Your task to perform on an android device: turn notification dots on Image 0: 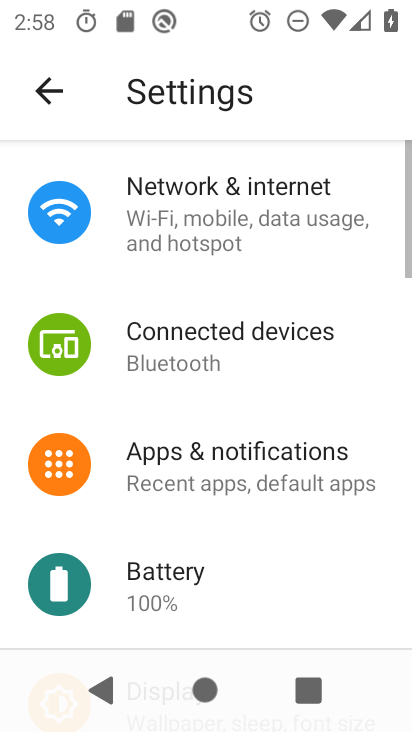
Step 0: click (283, 457)
Your task to perform on an android device: turn notification dots on Image 1: 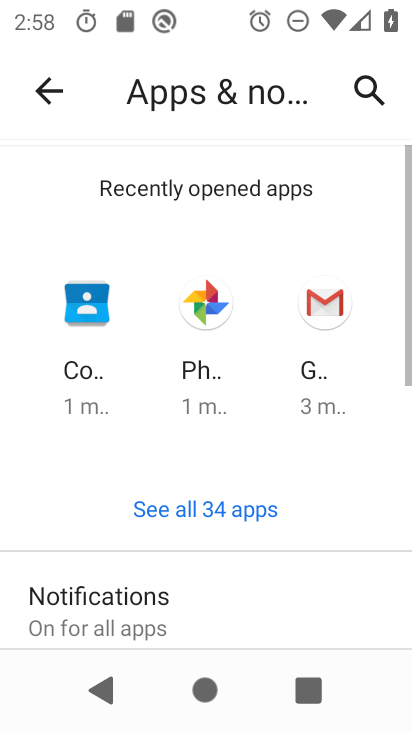
Step 1: click (251, 593)
Your task to perform on an android device: turn notification dots on Image 2: 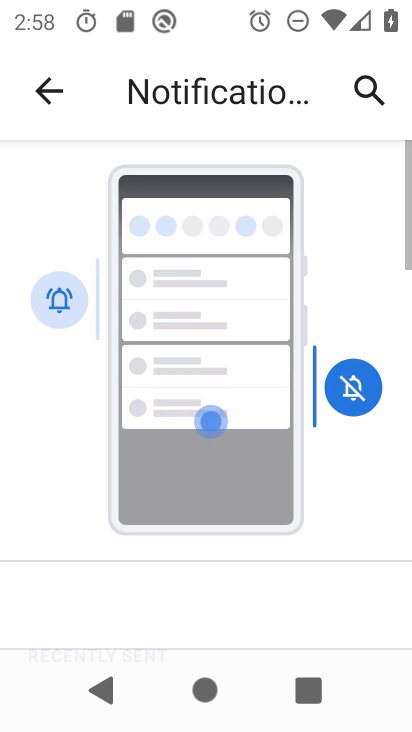
Step 2: drag from (254, 591) to (241, 267)
Your task to perform on an android device: turn notification dots on Image 3: 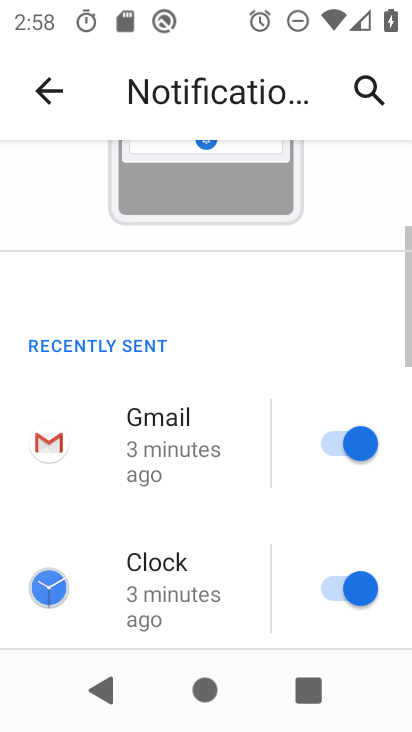
Step 3: drag from (209, 569) to (165, 246)
Your task to perform on an android device: turn notification dots on Image 4: 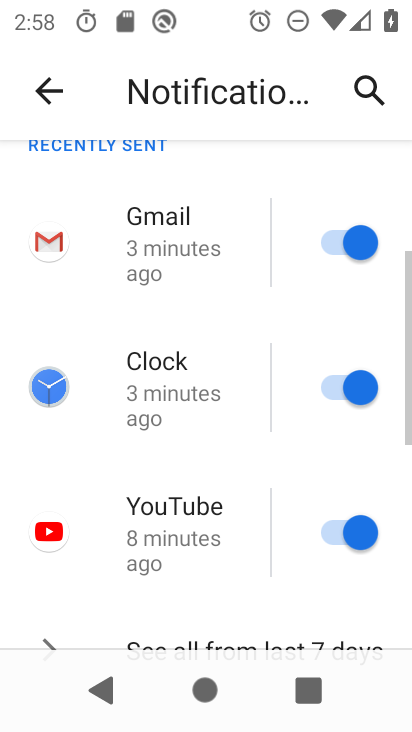
Step 4: drag from (241, 533) to (189, 269)
Your task to perform on an android device: turn notification dots on Image 5: 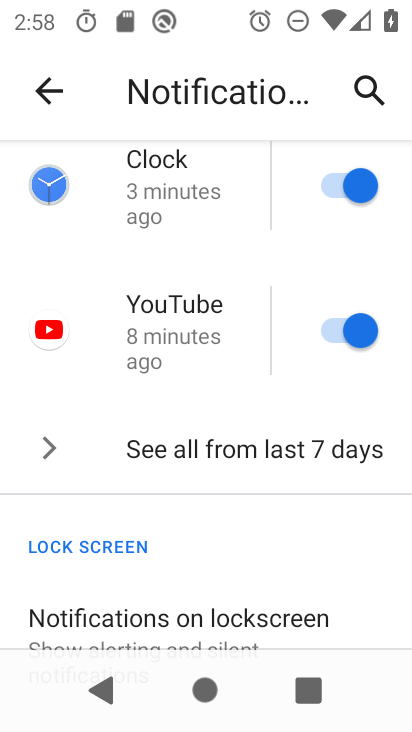
Step 5: drag from (253, 567) to (232, 357)
Your task to perform on an android device: turn notification dots on Image 6: 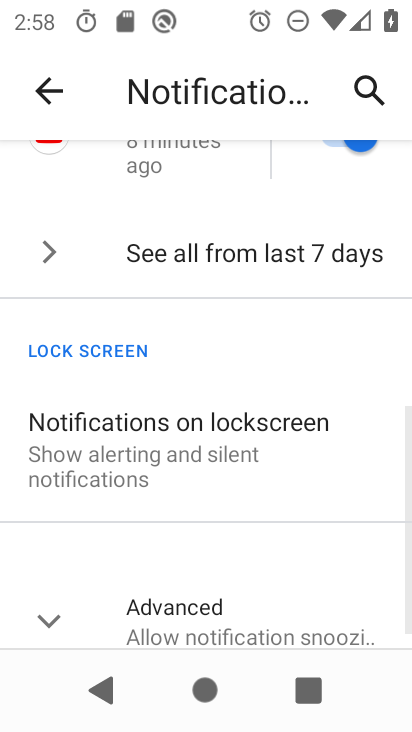
Step 6: drag from (222, 617) to (214, 411)
Your task to perform on an android device: turn notification dots on Image 7: 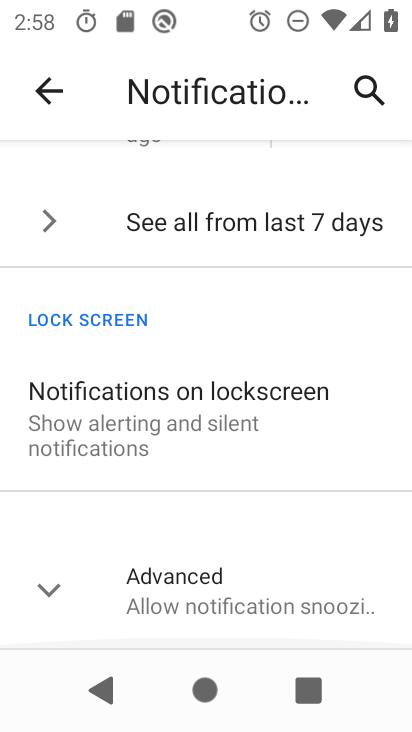
Step 7: click (209, 582)
Your task to perform on an android device: turn notification dots on Image 8: 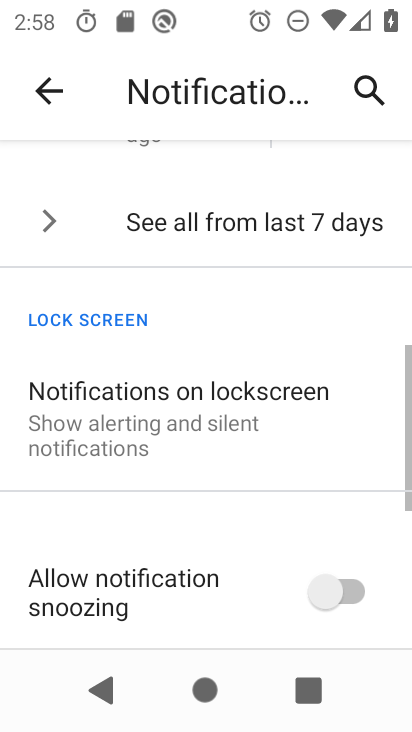
Step 8: drag from (210, 580) to (188, 347)
Your task to perform on an android device: turn notification dots on Image 9: 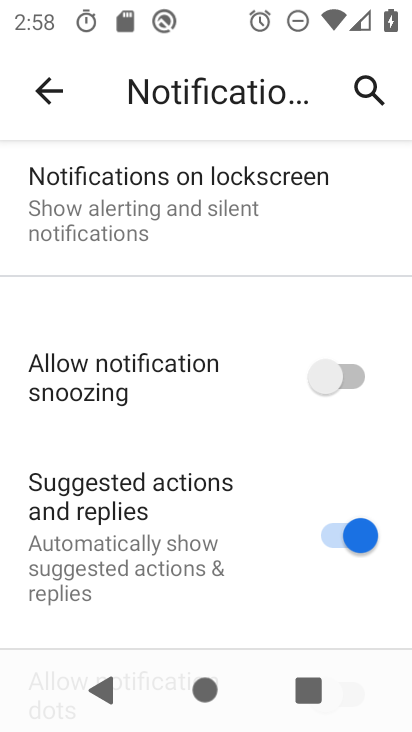
Step 9: drag from (197, 556) to (213, 318)
Your task to perform on an android device: turn notification dots on Image 10: 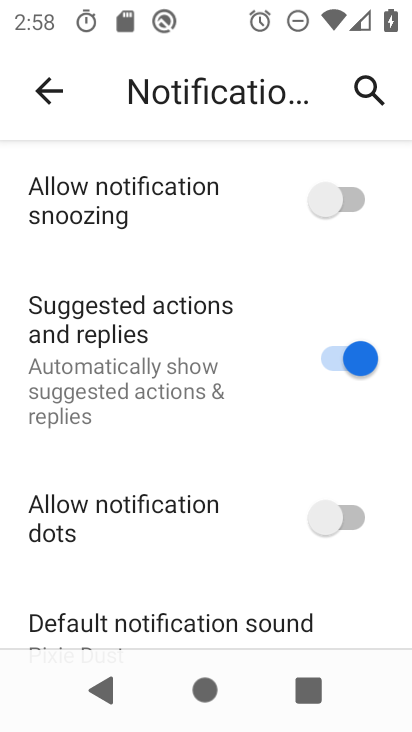
Step 10: drag from (257, 575) to (231, 432)
Your task to perform on an android device: turn notification dots on Image 11: 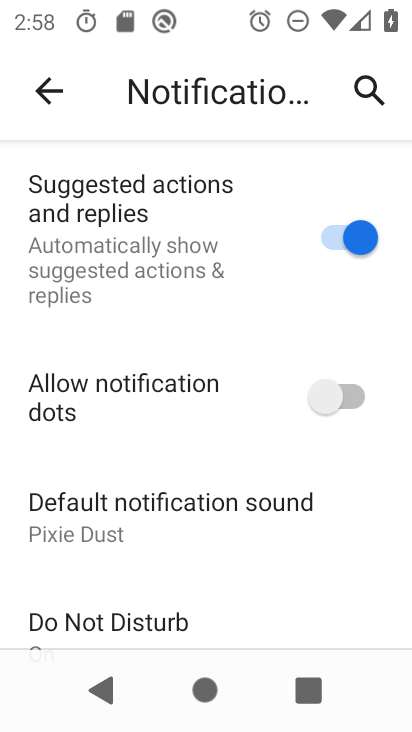
Step 11: click (349, 397)
Your task to perform on an android device: turn notification dots on Image 12: 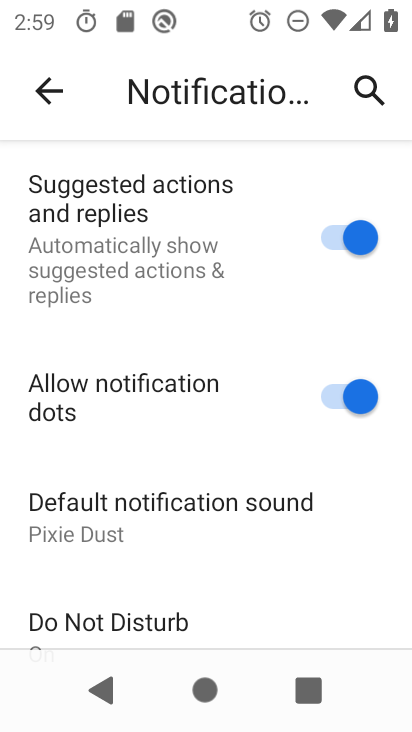
Step 12: task complete